Your task to perform on an android device: Add "apple airpods pro" to the cart on bestbuy Image 0: 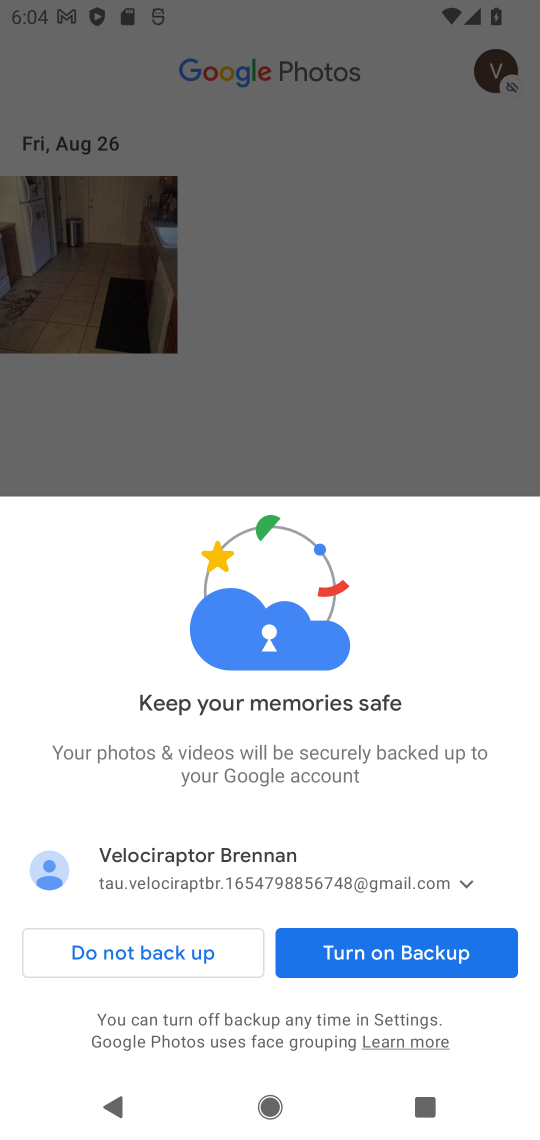
Step 0: press home button
Your task to perform on an android device: Add "apple airpods pro" to the cart on bestbuy Image 1: 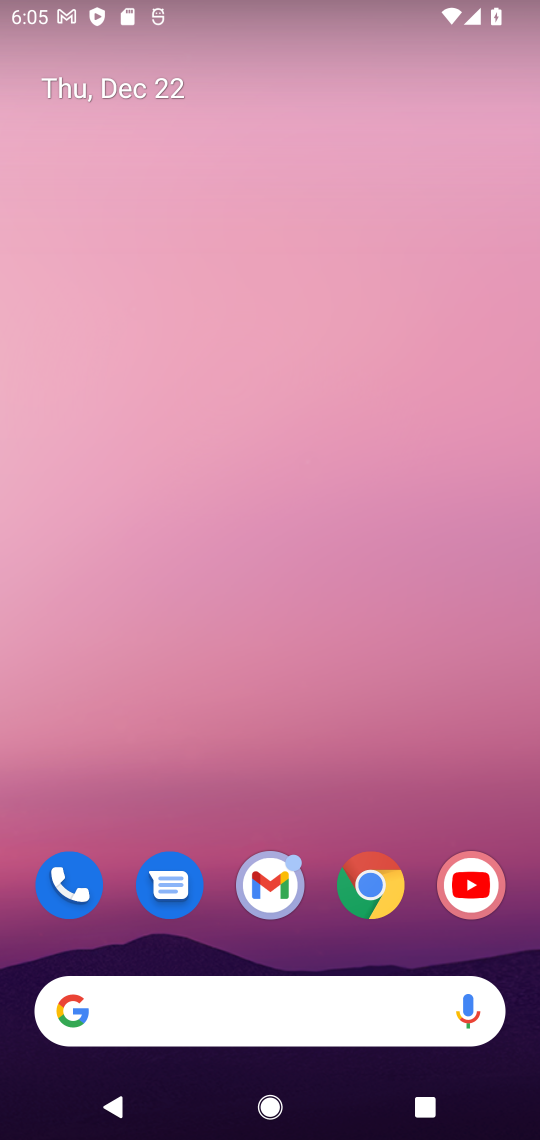
Step 1: click (377, 899)
Your task to perform on an android device: Add "apple airpods pro" to the cart on bestbuy Image 2: 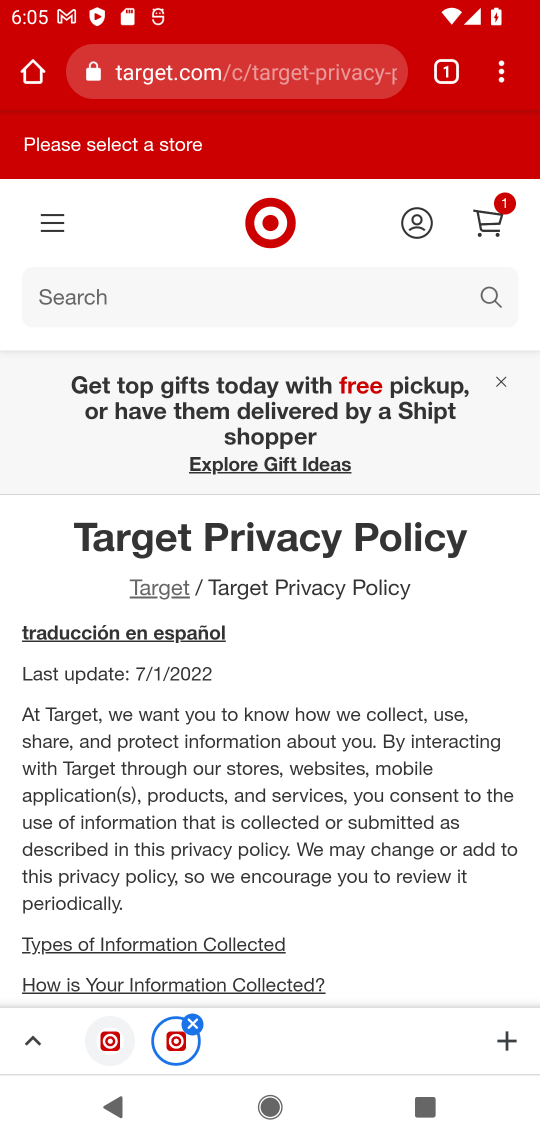
Step 2: click (173, 76)
Your task to perform on an android device: Add "apple airpods pro" to the cart on bestbuy Image 3: 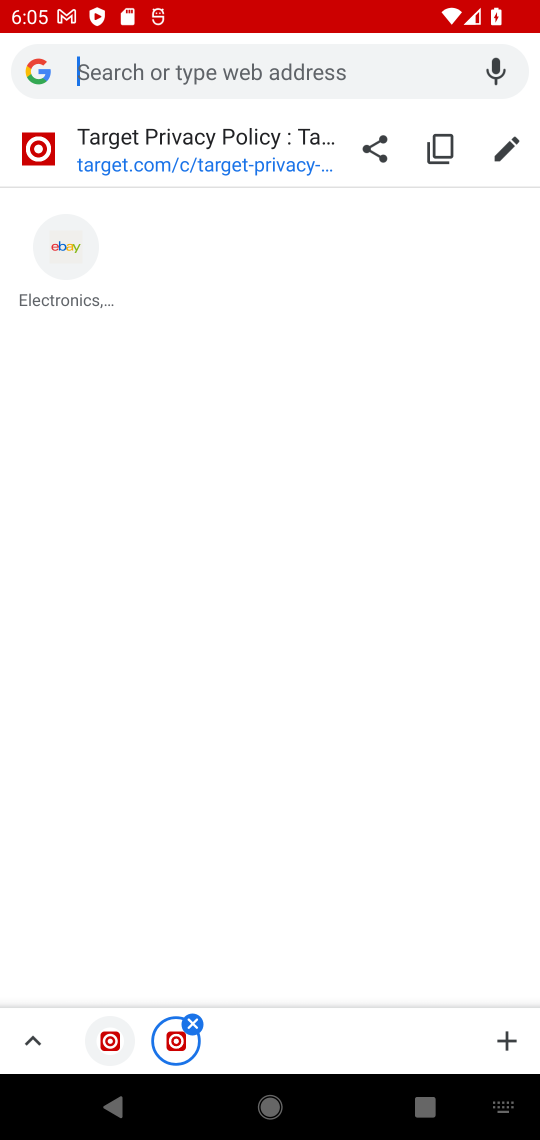
Step 3: type "bestbuy.com"
Your task to perform on an android device: Add "apple airpods pro" to the cart on bestbuy Image 4: 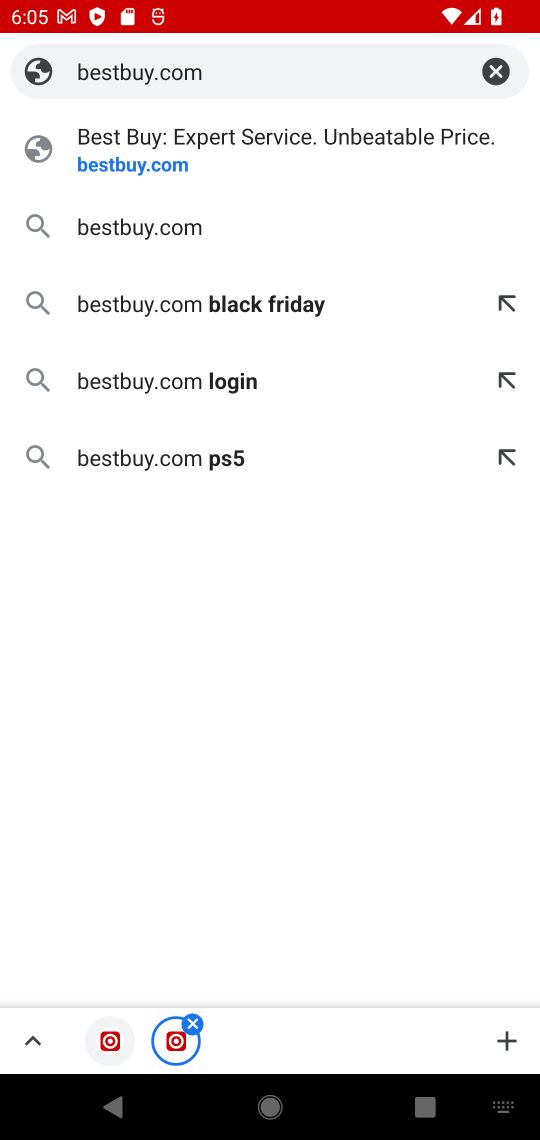
Step 4: click (100, 149)
Your task to perform on an android device: Add "apple airpods pro" to the cart on bestbuy Image 5: 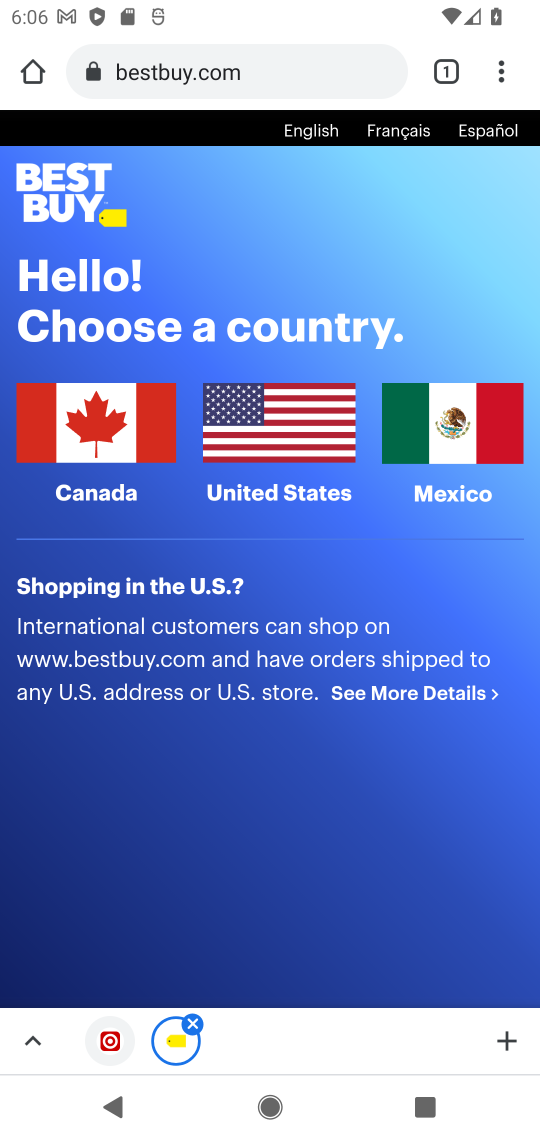
Step 5: click (276, 421)
Your task to perform on an android device: Add "apple airpods pro" to the cart on bestbuy Image 6: 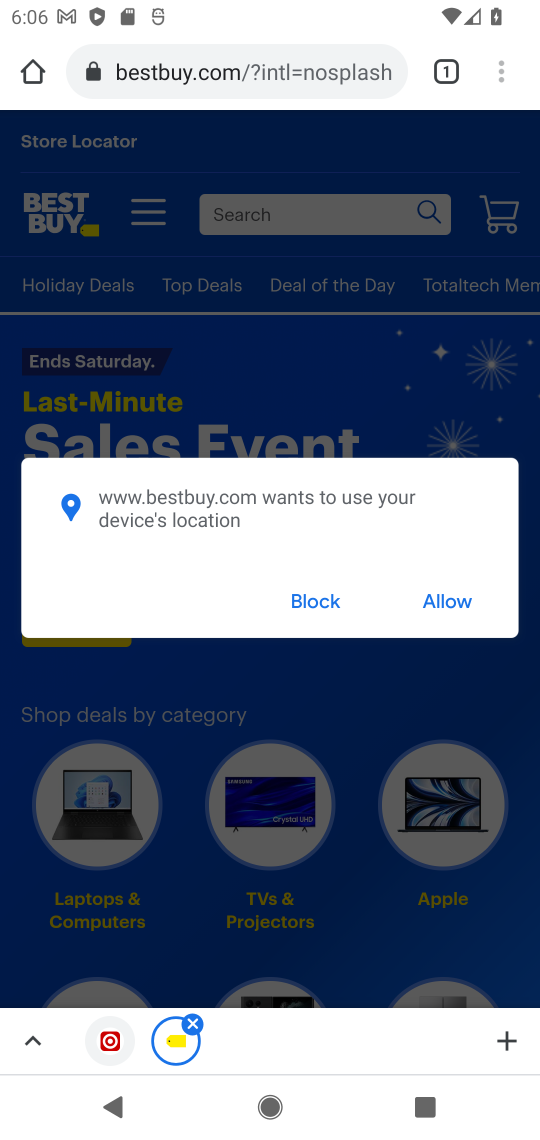
Step 6: click (319, 594)
Your task to perform on an android device: Add "apple airpods pro" to the cart on bestbuy Image 7: 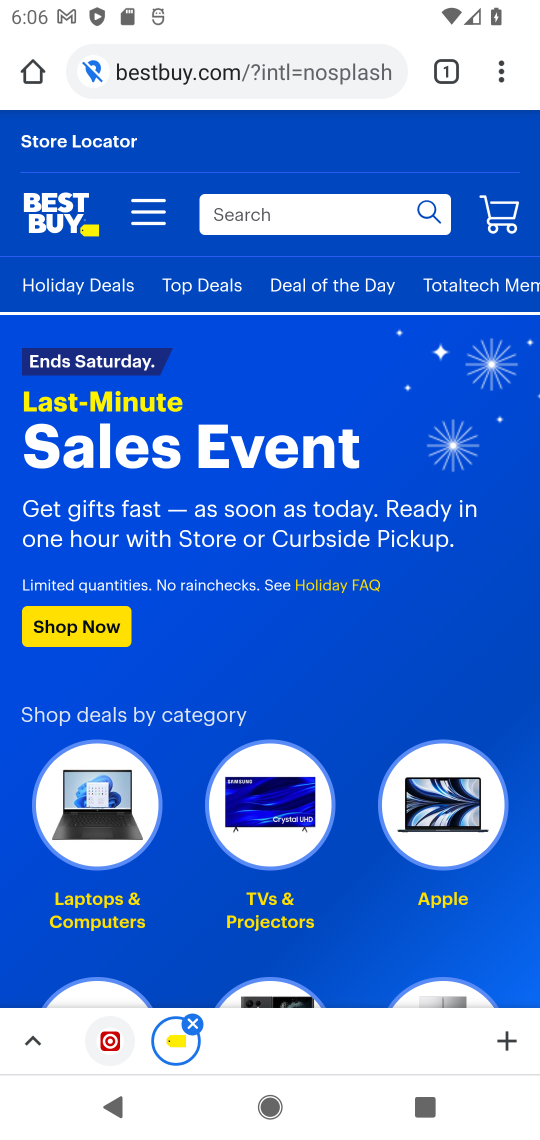
Step 7: click (284, 207)
Your task to perform on an android device: Add "apple airpods pro" to the cart on bestbuy Image 8: 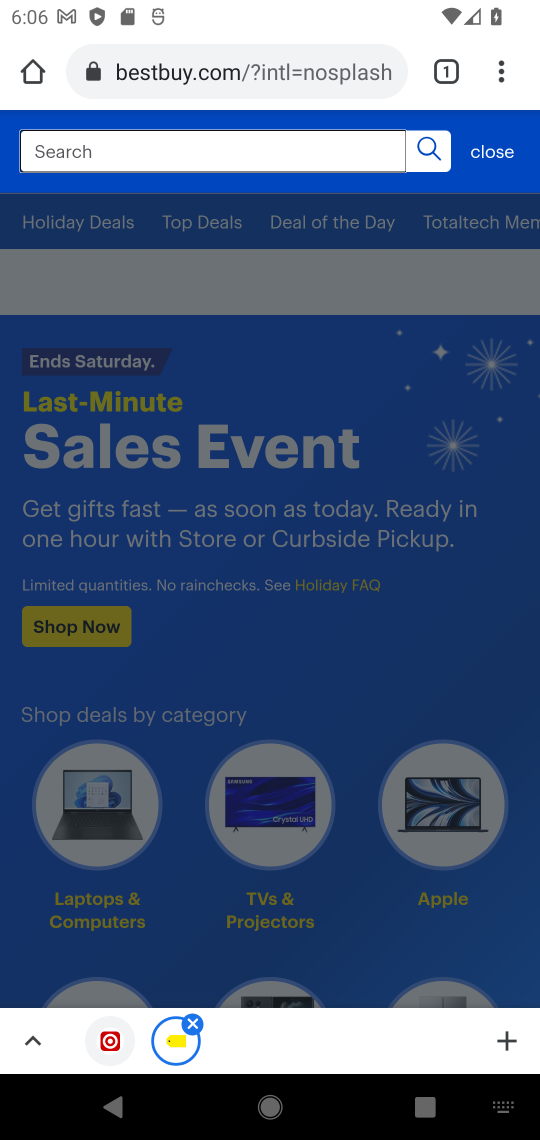
Step 8: type "apple airpods pro"
Your task to perform on an android device: Add "apple airpods pro" to the cart on bestbuy Image 9: 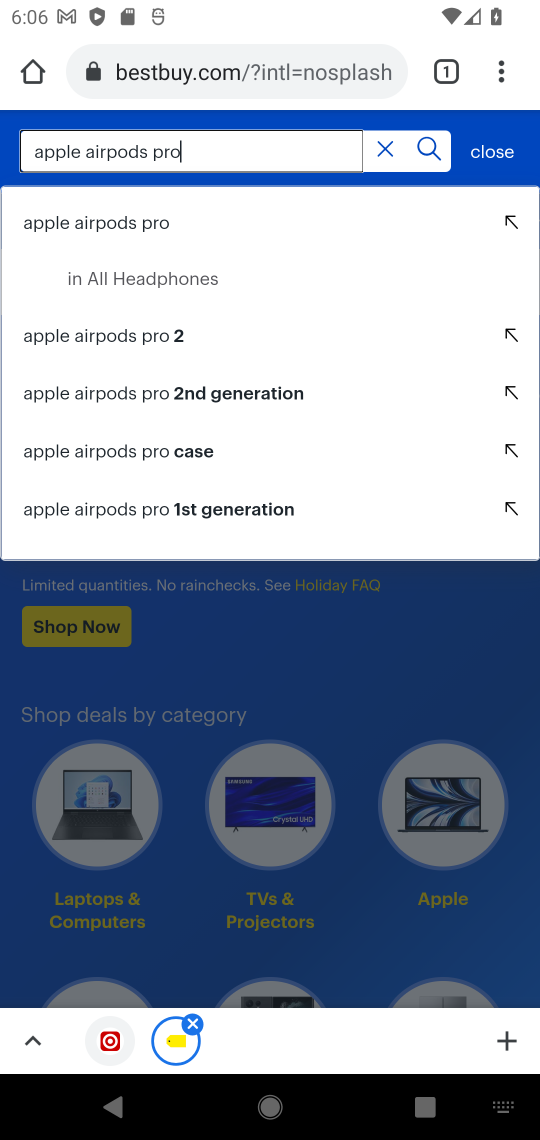
Step 9: click (87, 229)
Your task to perform on an android device: Add "apple airpods pro" to the cart on bestbuy Image 10: 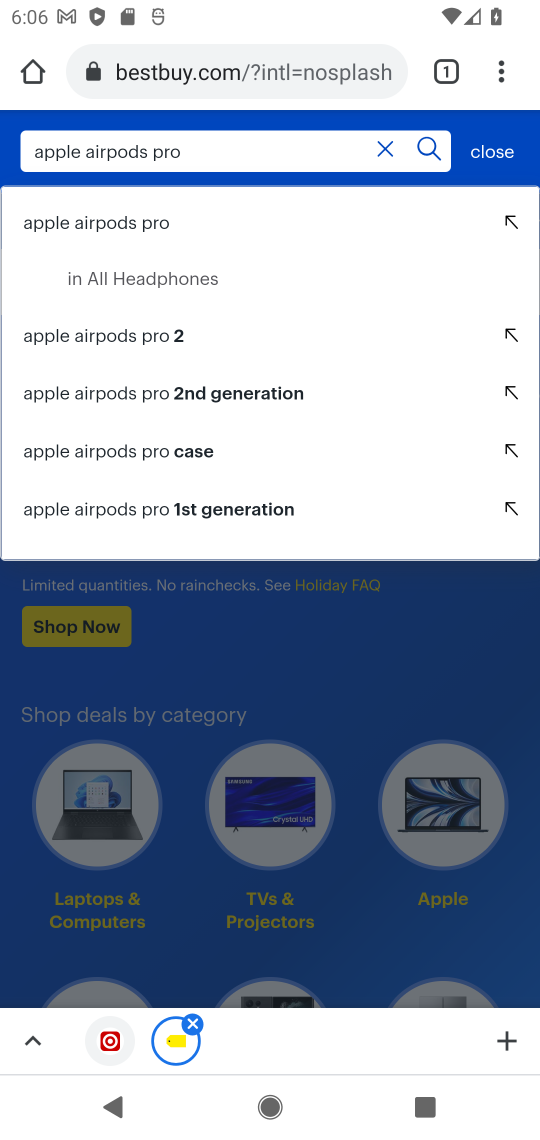
Step 10: click (147, 231)
Your task to perform on an android device: Add "apple airpods pro" to the cart on bestbuy Image 11: 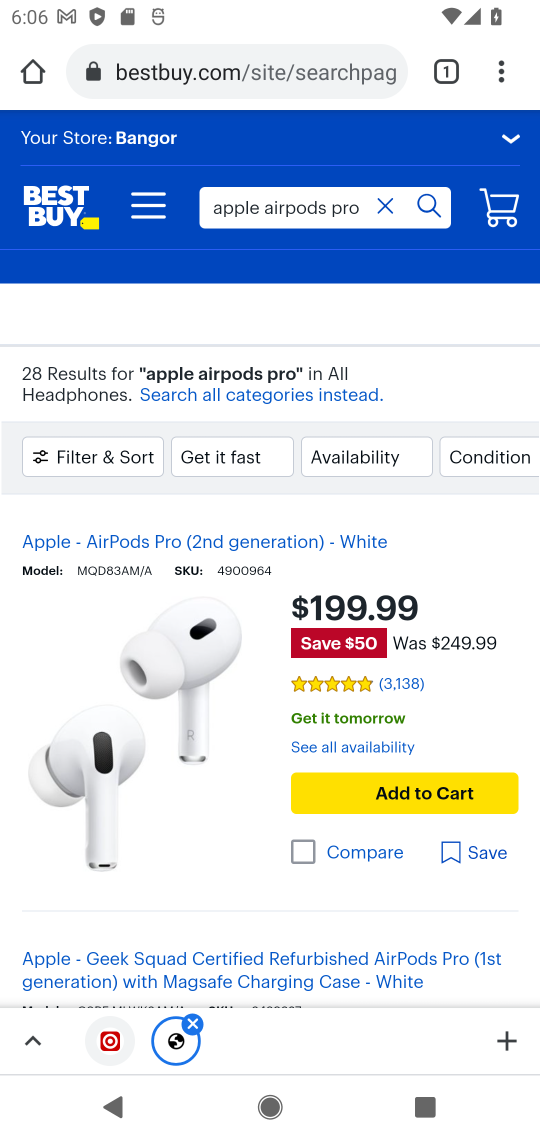
Step 11: drag from (202, 851) to (219, 485)
Your task to perform on an android device: Add "apple airpods pro" to the cart on bestbuy Image 12: 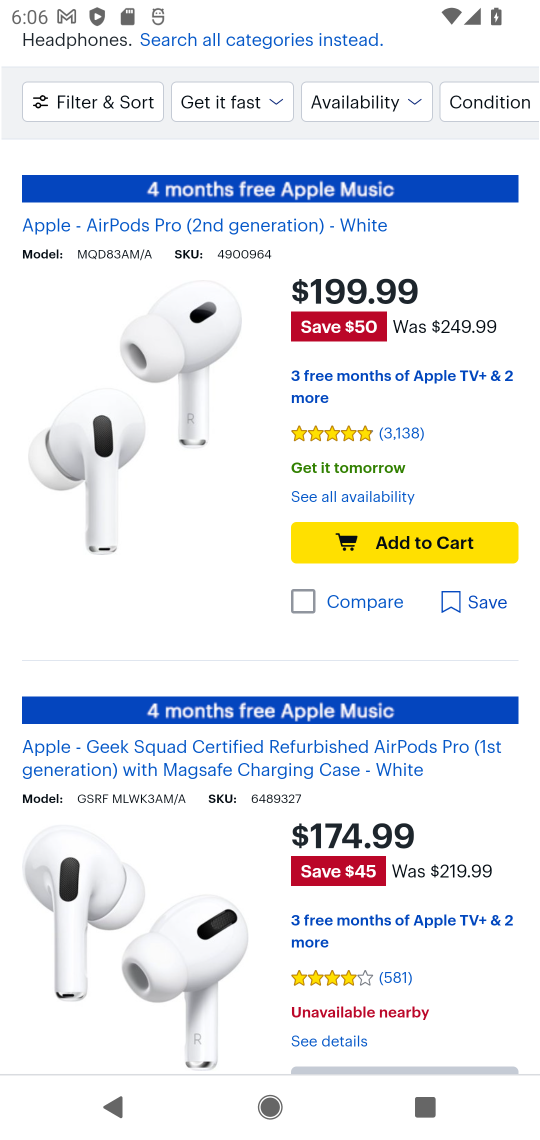
Step 12: click (391, 482)
Your task to perform on an android device: Add "apple airpods pro" to the cart on bestbuy Image 13: 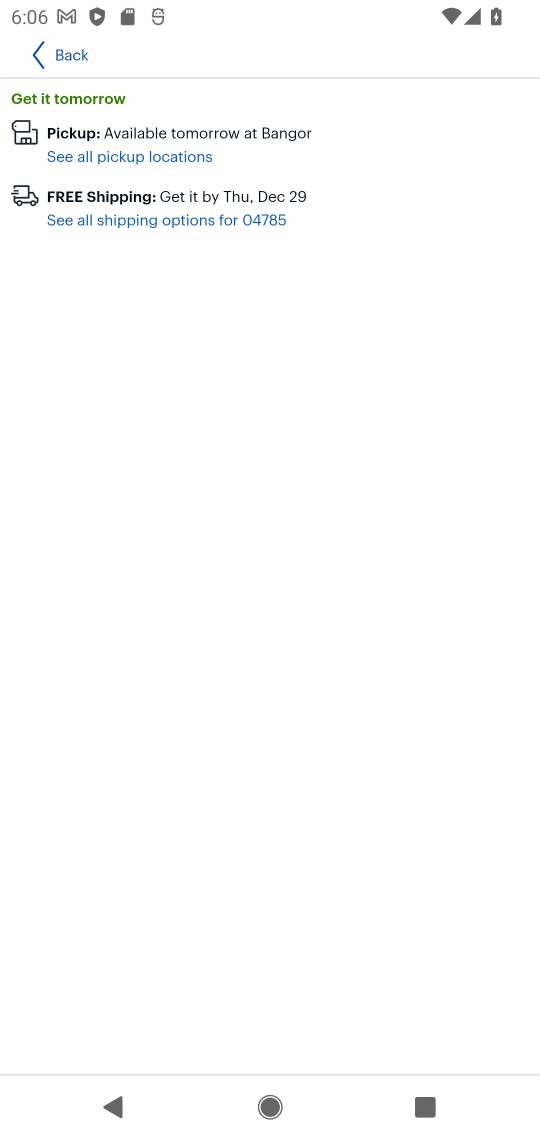
Step 13: click (384, 542)
Your task to perform on an android device: Add "apple airpods pro" to the cart on bestbuy Image 14: 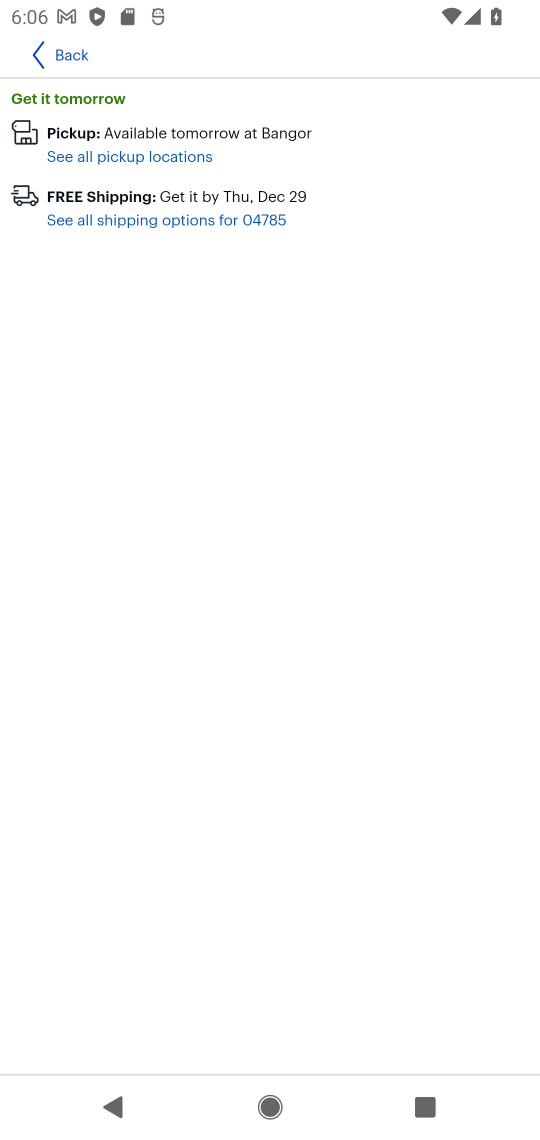
Step 14: click (42, 62)
Your task to perform on an android device: Add "apple airpods pro" to the cart on bestbuy Image 15: 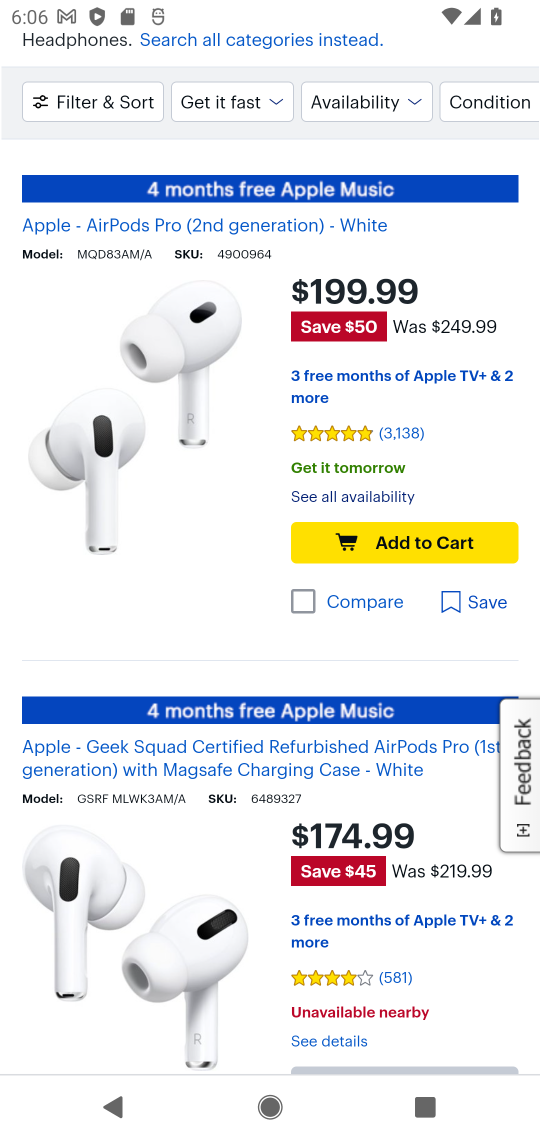
Step 15: click (365, 540)
Your task to perform on an android device: Add "apple airpods pro" to the cart on bestbuy Image 16: 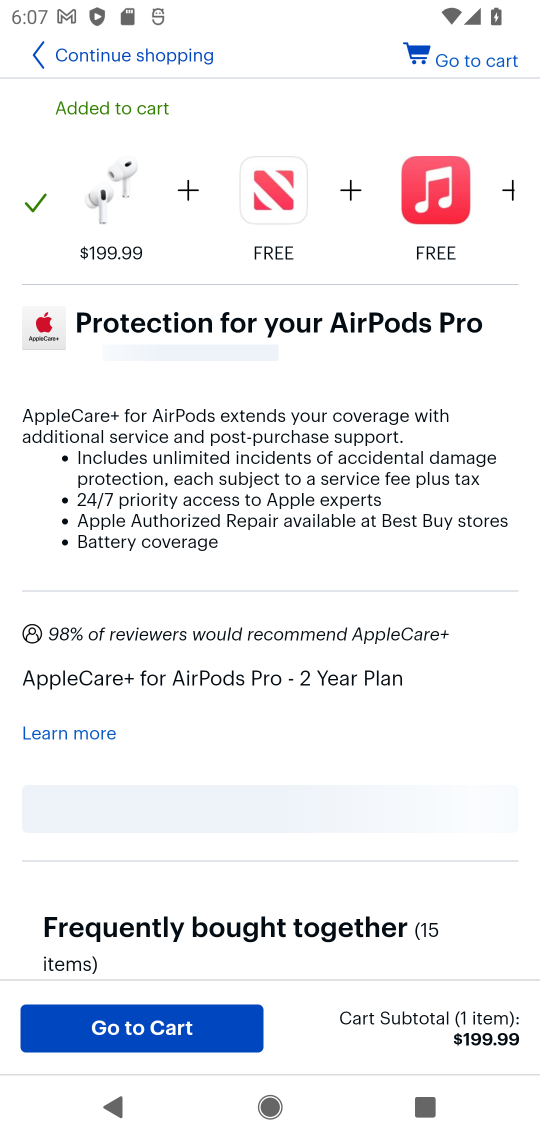
Step 16: task complete